Your task to perform on an android device: change the clock display to digital Image 0: 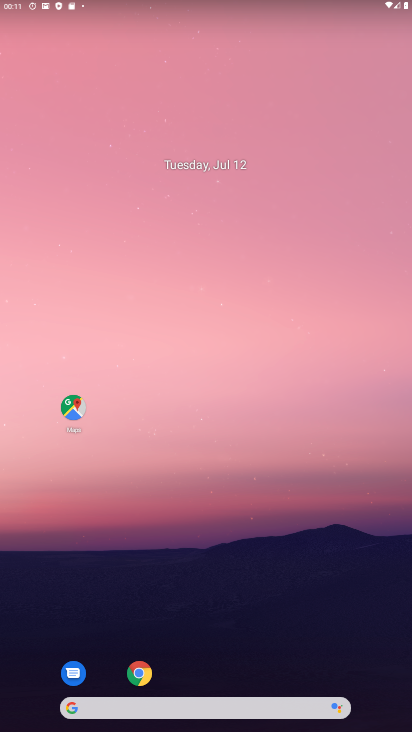
Step 0: press home button
Your task to perform on an android device: change the clock display to digital Image 1: 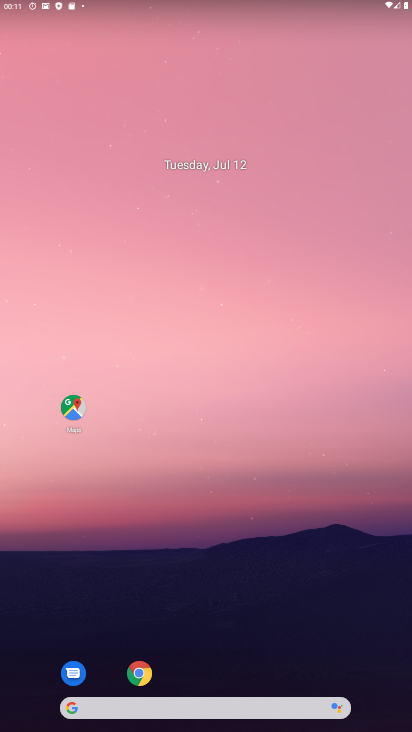
Step 1: drag from (271, 639) to (238, 108)
Your task to perform on an android device: change the clock display to digital Image 2: 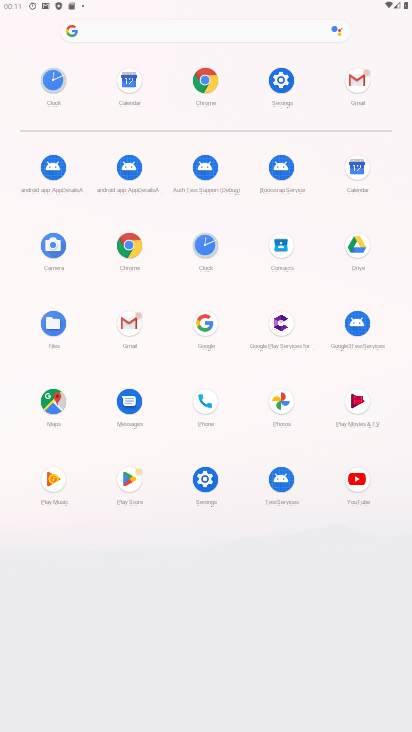
Step 2: click (283, 78)
Your task to perform on an android device: change the clock display to digital Image 3: 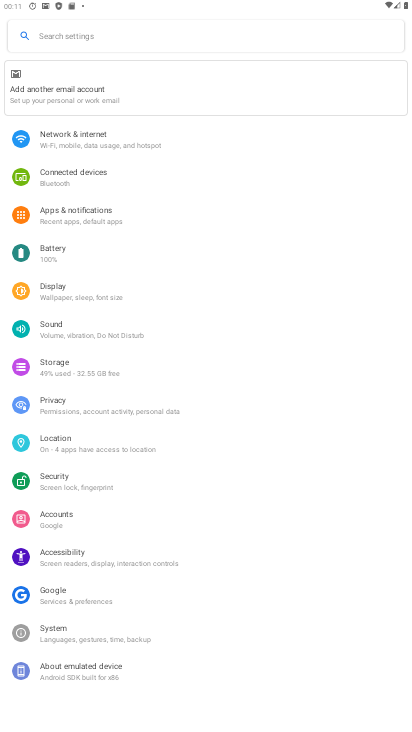
Step 3: press home button
Your task to perform on an android device: change the clock display to digital Image 4: 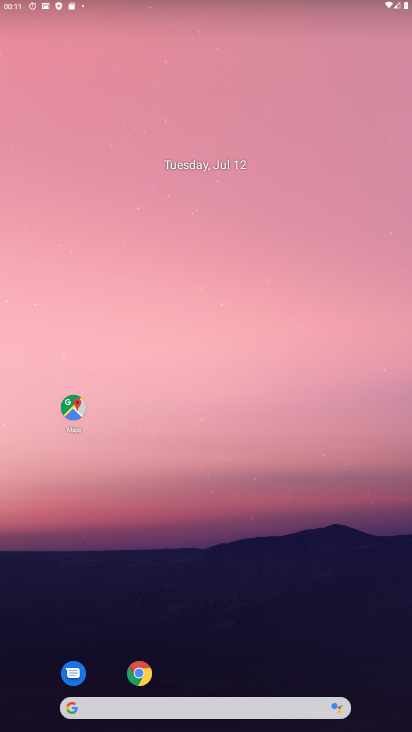
Step 4: drag from (239, 428) to (240, 0)
Your task to perform on an android device: change the clock display to digital Image 5: 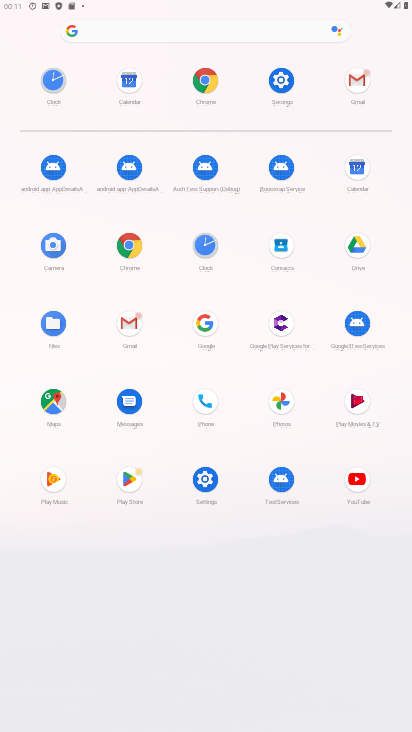
Step 5: click (206, 249)
Your task to perform on an android device: change the clock display to digital Image 6: 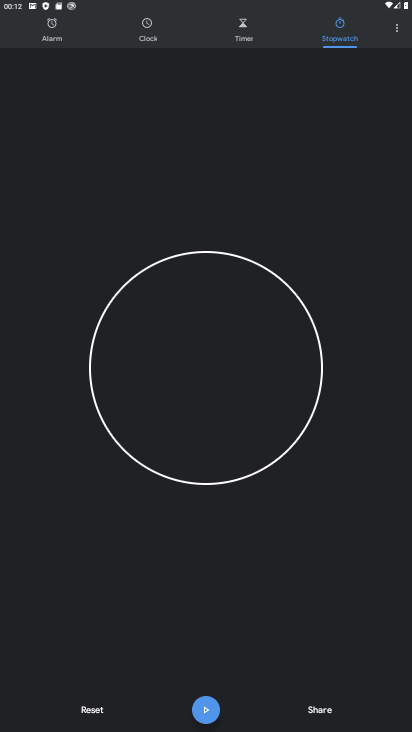
Step 6: click (396, 32)
Your task to perform on an android device: change the clock display to digital Image 7: 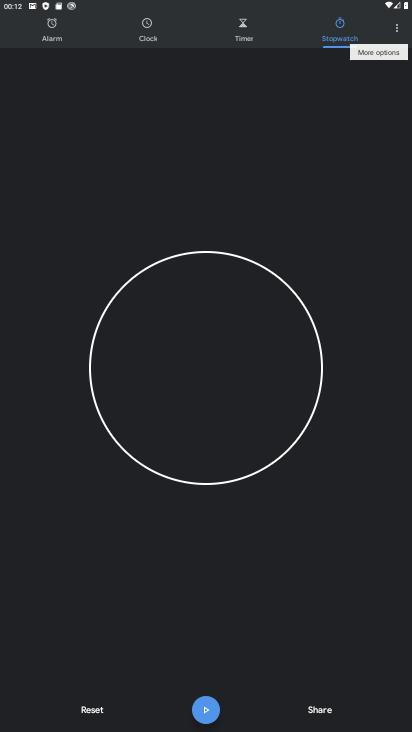
Step 7: click (393, 37)
Your task to perform on an android device: change the clock display to digital Image 8: 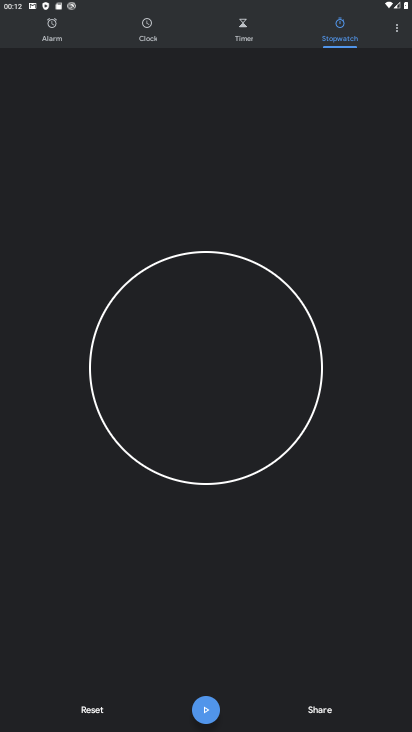
Step 8: click (397, 30)
Your task to perform on an android device: change the clock display to digital Image 9: 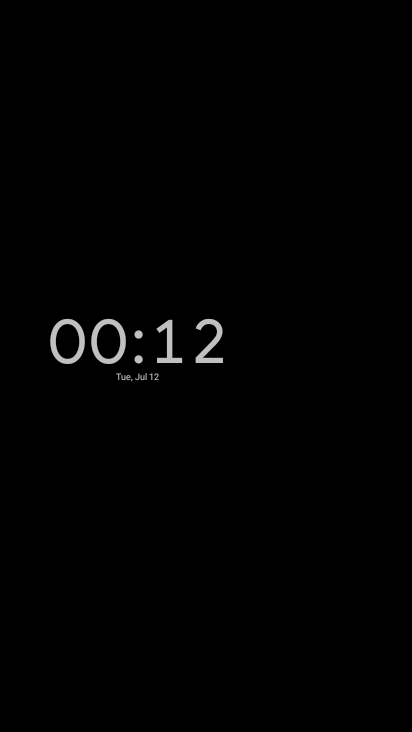
Step 9: press back button
Your task to perform on an android device: change the clock display to digital Image 10: 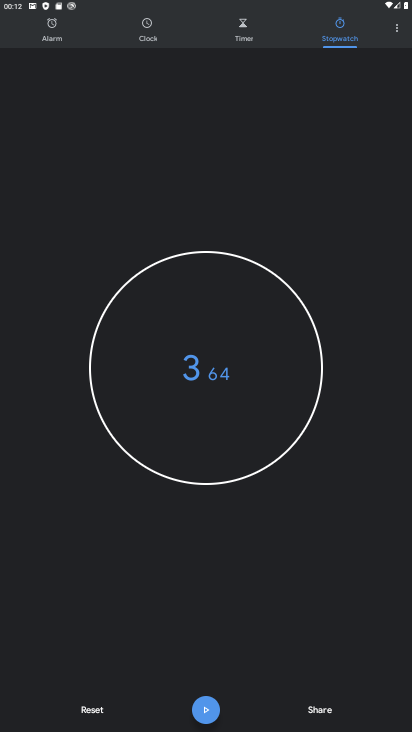
Step 10: click (398, 32)
Your task to perform on an android device: change the clock display to digital Image 11: 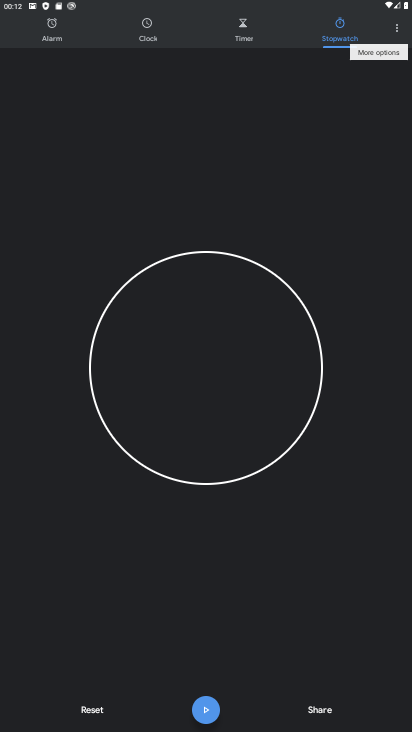
Step 11: click (398, 33)
Your task to perform on an android device: change the clock display to digital Image 12: 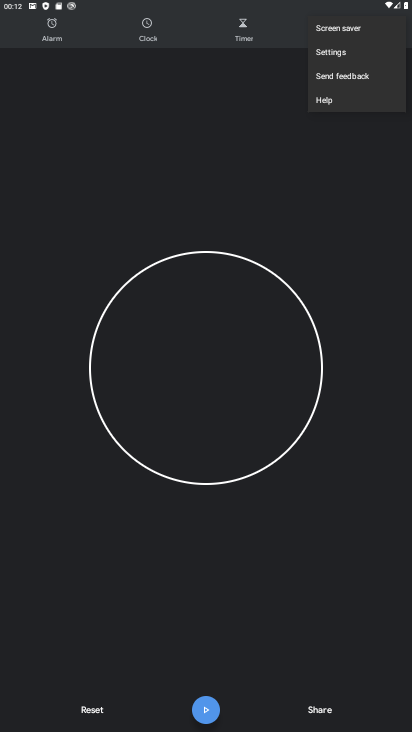
Step 12: click (338, 53)
Your task to perform on an android device: change the clock display to digital Image 13: 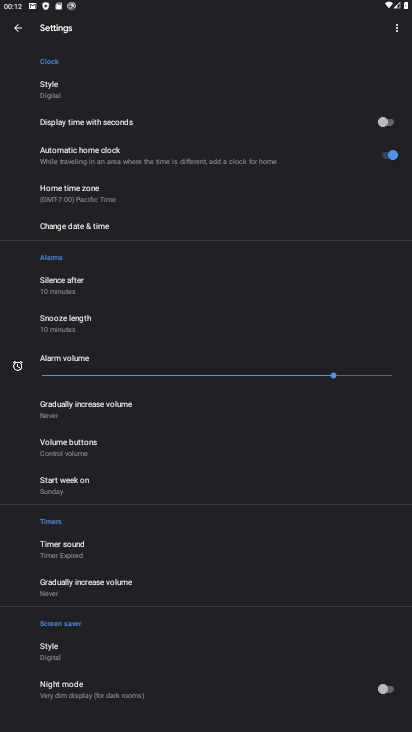
Step 13: click (45, 87)
Your task to perform on an android device: change the clock display to digital Image 14: 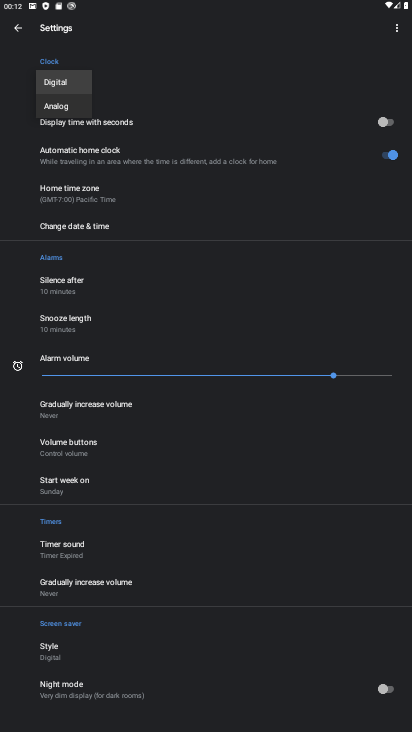
Step 14: task complete